Your task to perform on an android device: turn notification dots on Image 0: 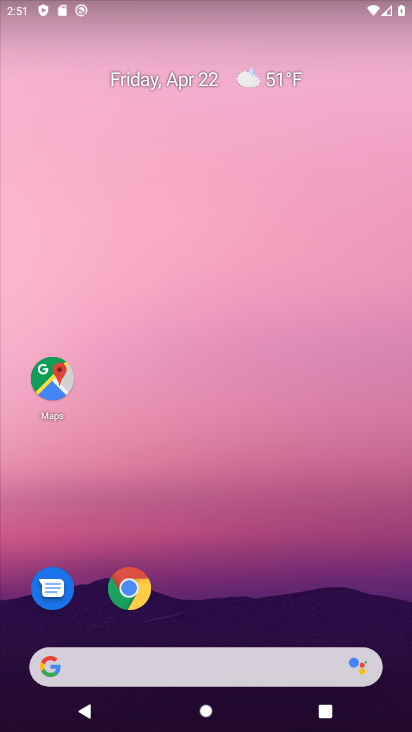
Step 0: drag from (375, 585) to (373, 125)
Your task to perform on an android device: turn notification dots on Image 1: 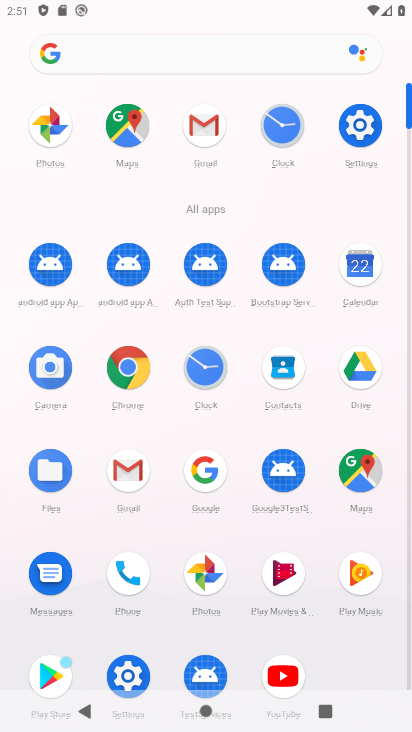
Step 1: click (375, 136)
Your task to perform on an android device: turn notification dots on Image 2: 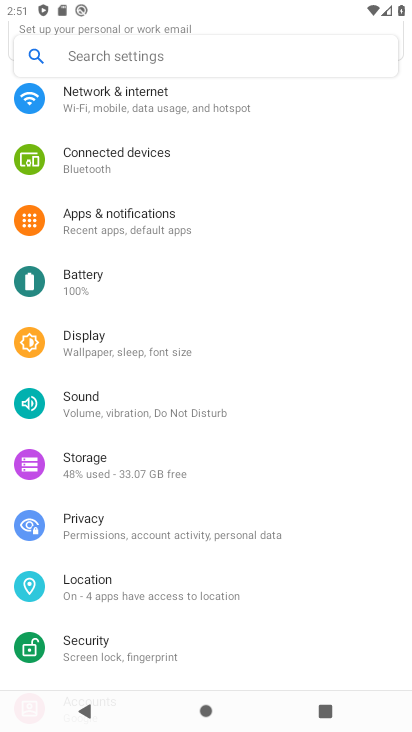
Step 2: drag from (352, 306) to (355, 431)
Your task to perform on an android device: turn notification dots on Image 3: 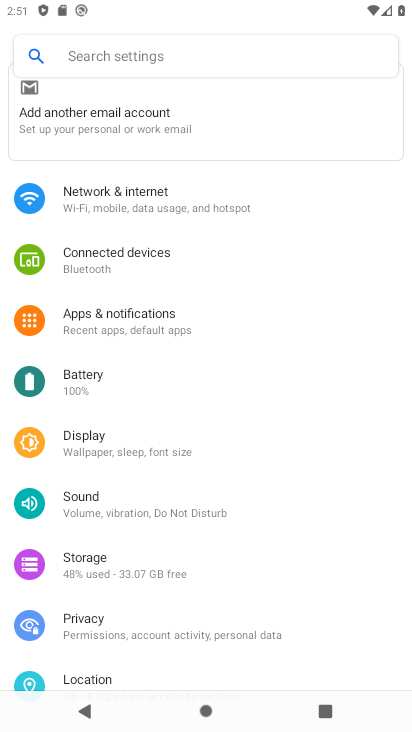
Step 3: drag from (334, 530) to (331, 453)
Your task to perform on an android device: turn notification dots on Image 4: 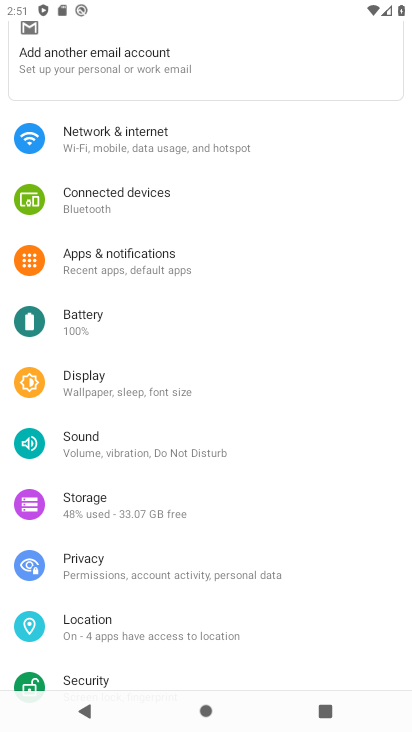
Step 4: drag from (345, 563) to (349, 431)
Your task to perform on an android device: turn notification dots on Image 5: 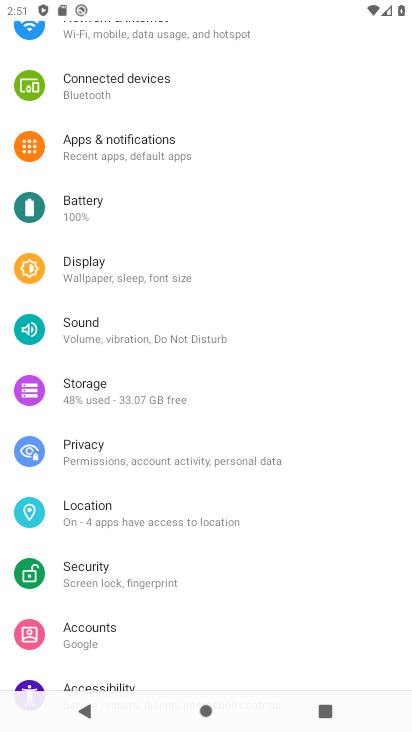
Step 5: drag from (352, 582) to (354, 444)
Your task to perform on an android device: turn notification dots on Image 6: 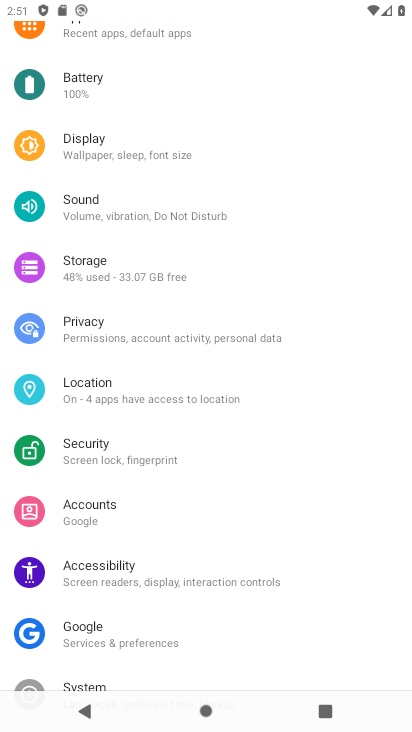
Step 6: drag from (348, 595) to (347, 435)
Your task to perform on an android device: turn notification dots on Image 7: 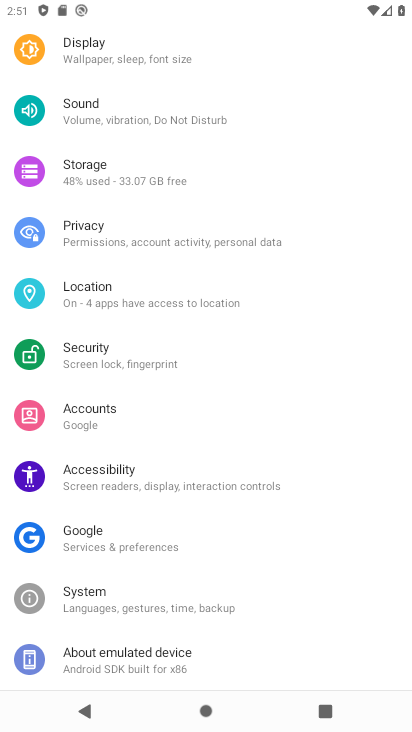
Step 7: drag from (335, 565) to (344, 452)
Your task to perform on an android device: turn notification dots on Image 8: 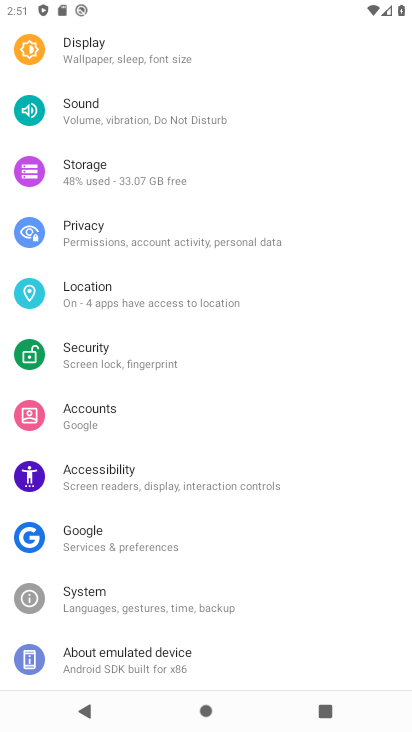
Step 8: drag from (359, 369) to (357, 494)
Your task to perform on an android device: turn notification dots on Image 9: 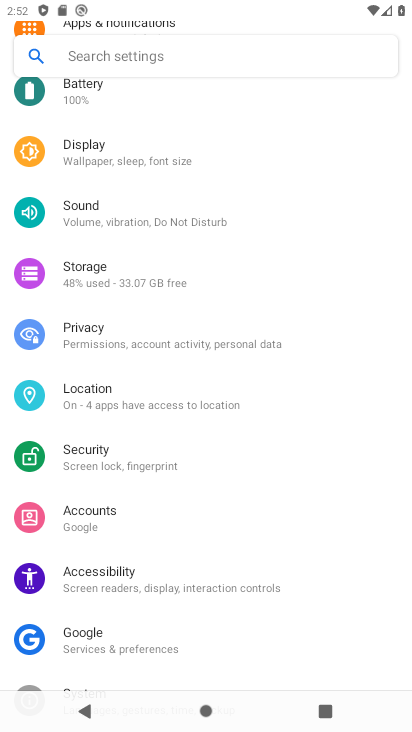
Step 9: drag from (360, 356) to (350, 507)
Your task to perform on an android device: turn notification dots on Image 10: 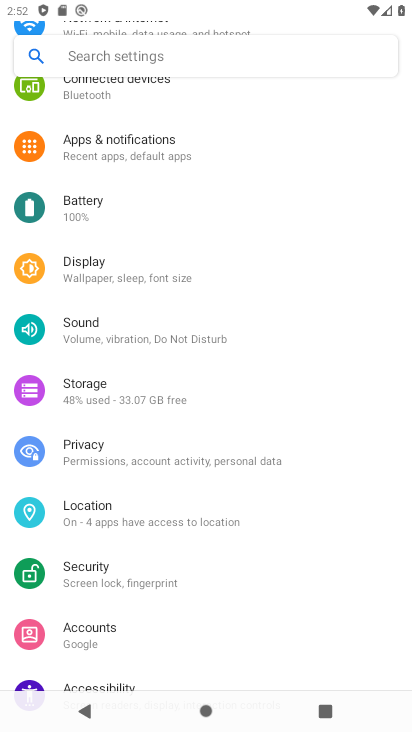
Step 10: drag from (355, 339) to (332, 502)
Your task to perform on an android device: turn notification dots on Image 11: 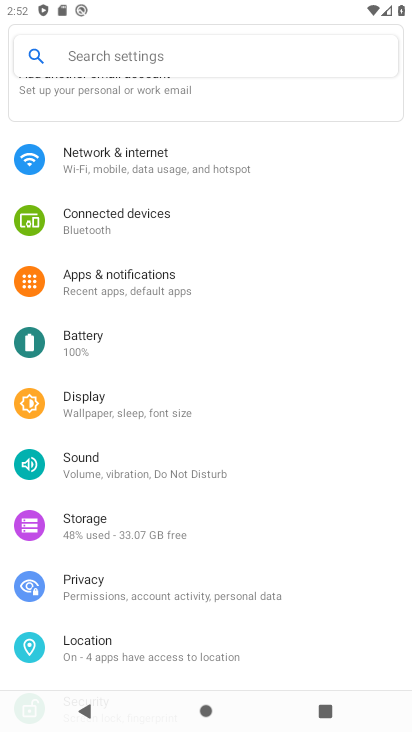
Step 11: drag from (322, 330) to (324, 477)
Your task to perform on an android device: turn notification dots on Image 12: 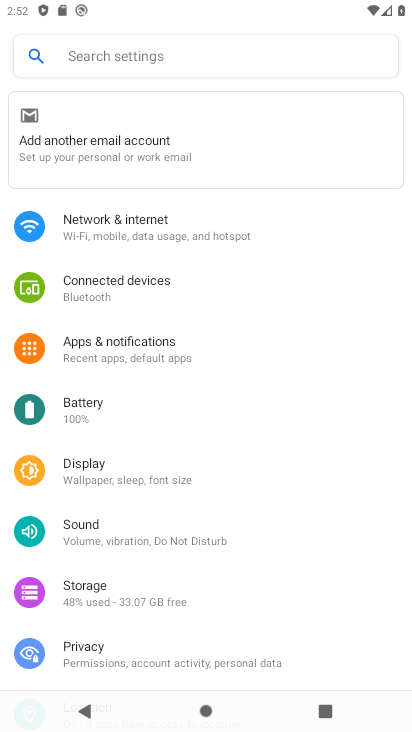
Step 12: click (216, 351)
Your task to perform on an android device: turn notification dots on Image 13: 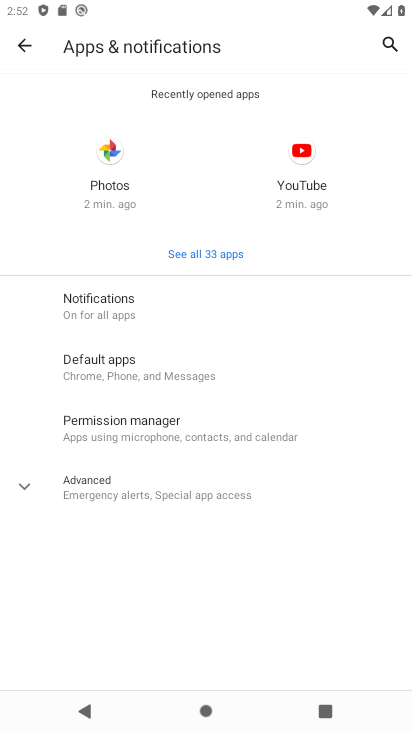
Step 13: click (118, 313)
Your task to perform on an android device: turn notification dots on Image 14: 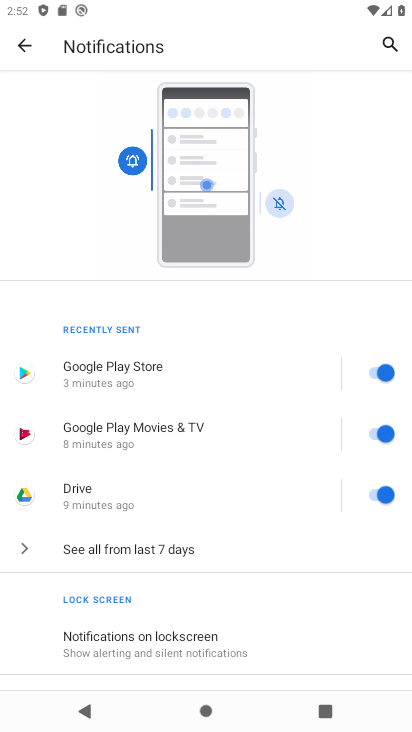
Step 14: drag from (262, 566) to (278, 356)
Your task to perform on an android device: turn notification dots on Image 15: 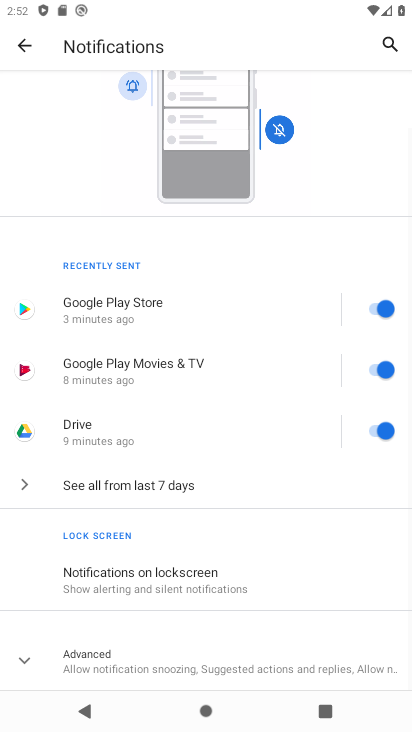
Step 15: click (283, 663)
Your task to perform on an android device: turn notification dots on Image 16: 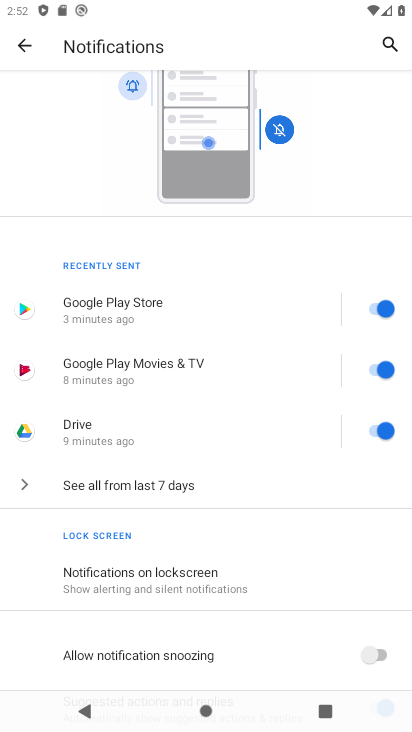
Step 16: task complete